Your task to perform on an android device: check battery use Image 0: 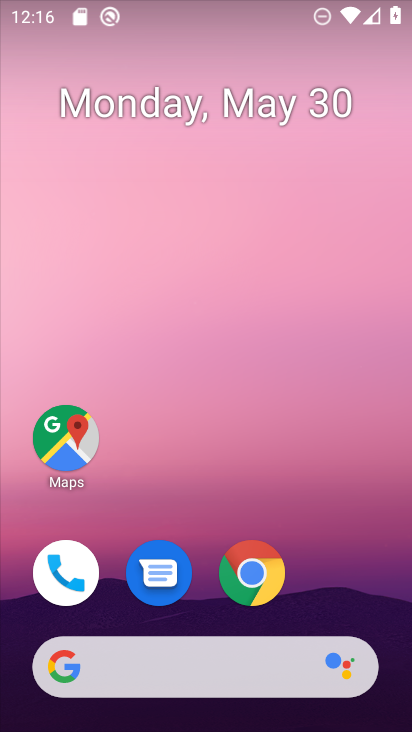
Step 0: press home button
Your task to perform on an android device: check battery use Image 1: 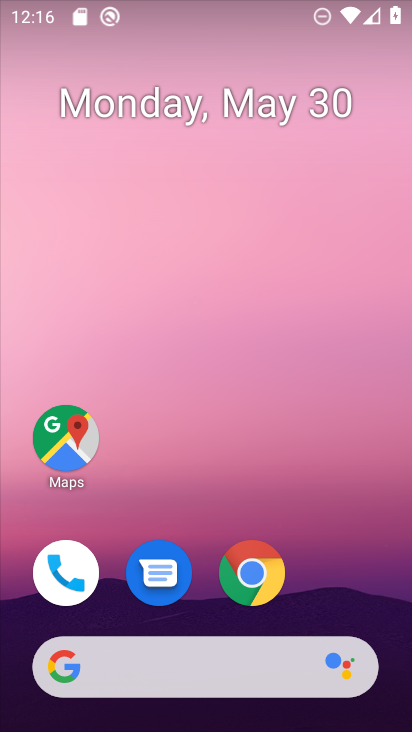
Step 1: drag from (347, 623) to (302, 170)
Your task to perform on an android device: check battery use Image 2: 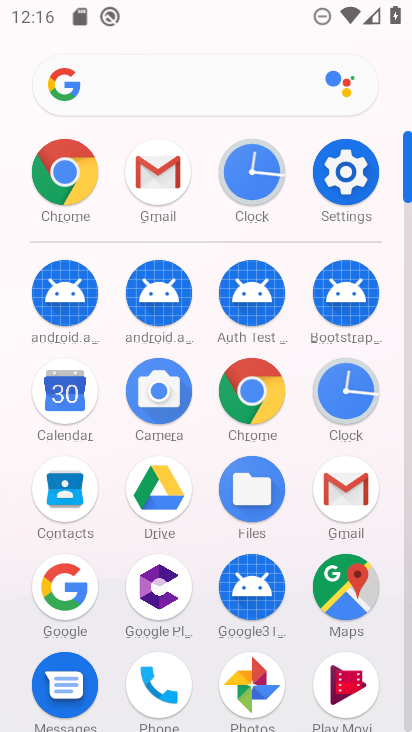
Step 2: click (331, 189)
Your task to perform on an android device: check battery use Image 3: 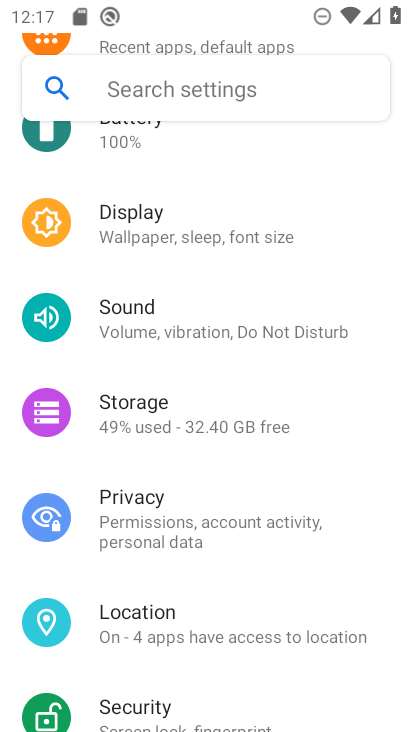
Step 3: click (141, 133)
Your task to perform on an android device: check battery use Image 4: 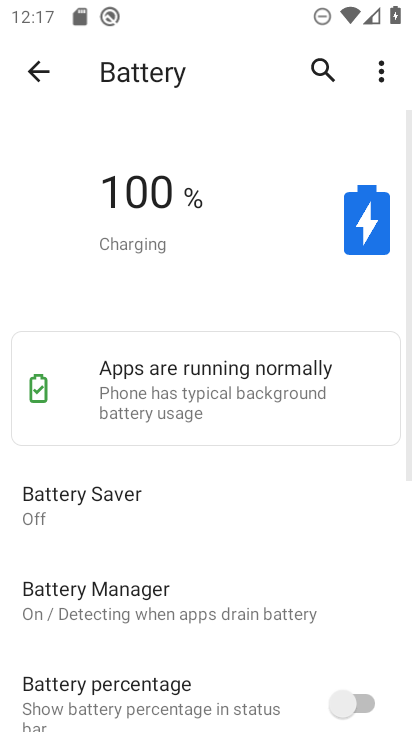
Step 4: click (380, 72)
Your task to perform on an android device: check battery use Image 5: 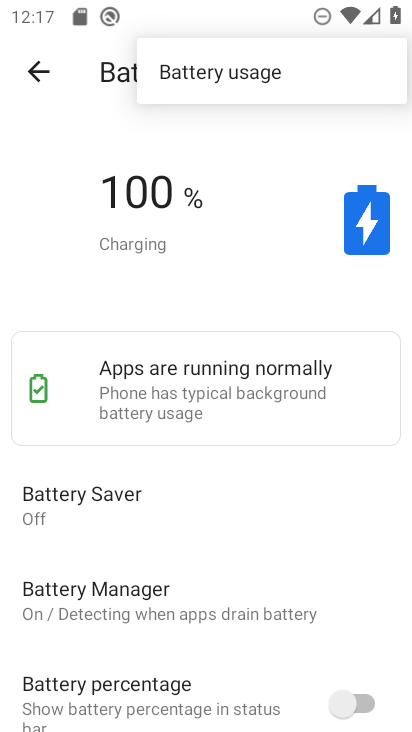
Step 5: click (226, 75)
Your task to perform on an android device: check battery use Image 6: 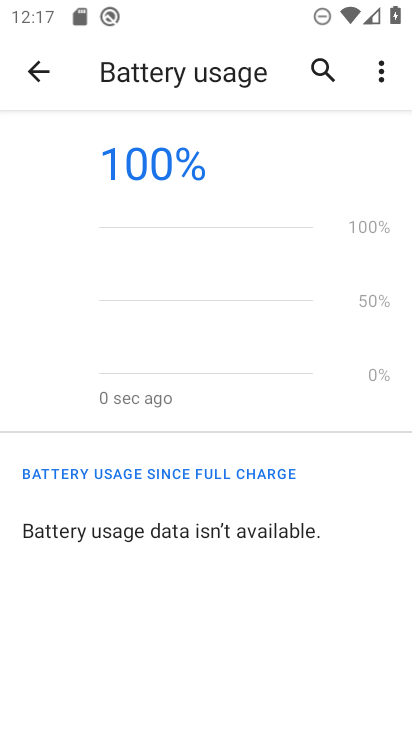
Step 6: task complete